Your task to perform on an android device: Is it going to rain today? Image 0: 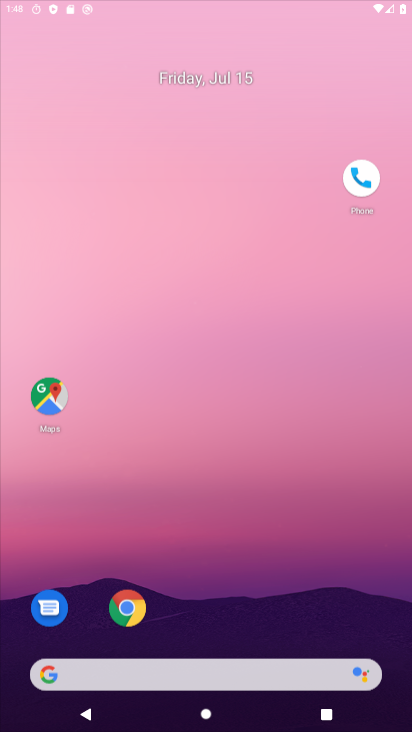
Step 0: click (368, 41)
Your task to perform on an android device: Is it going to rain today? Image 1: 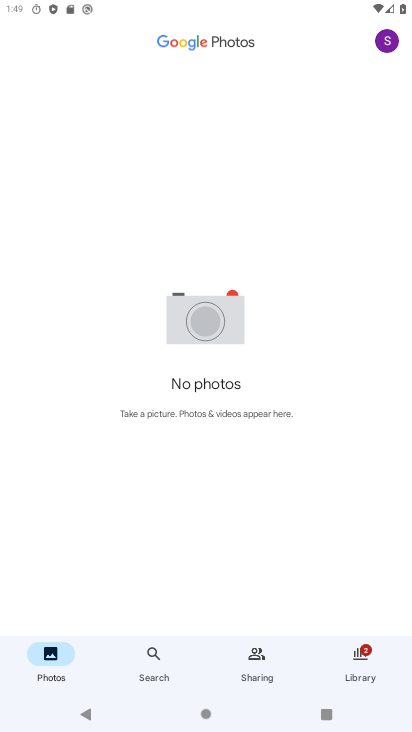
Step 1: drag from (205, 585) to (240, 268)
Your task to perform on an android device: Is it going to rain today? Image 2: 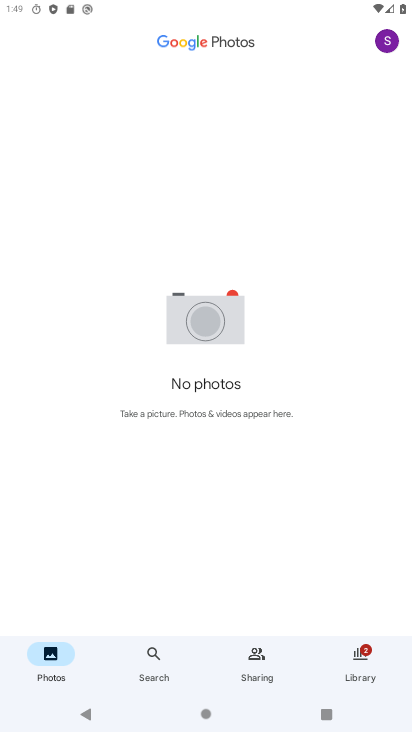
Step 2: press home button
Your task to perform on an android device: Is it going to rain today? Image 3: 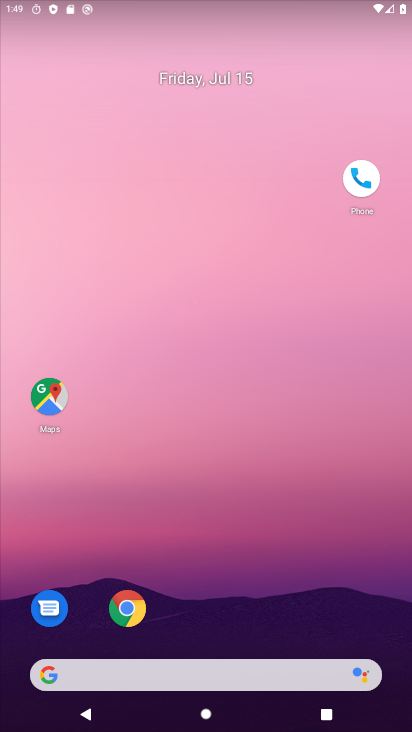
Step 3: drag from (192, 614) to (278, 76)
Your task to perform on an android device: Is it going to rain today? Image 4: 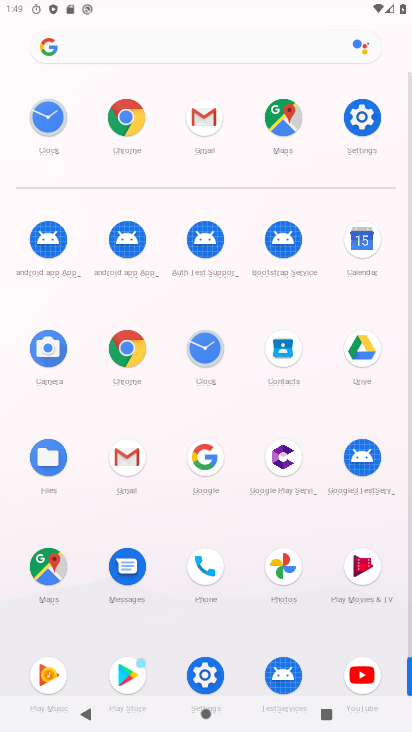
Step 4: click (202, 45)
Your task to perform on an android device: Is it going to rain today? Image 5: 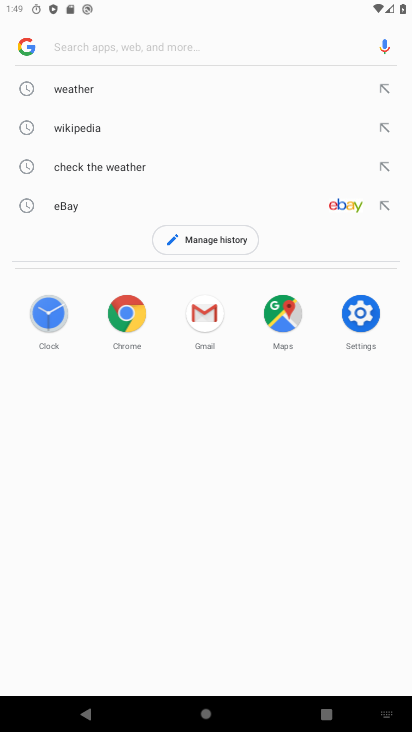
Step 5: type "Is it going to rain today?"
Your task to perform on an android device: Is it going to rain today? Image 6: 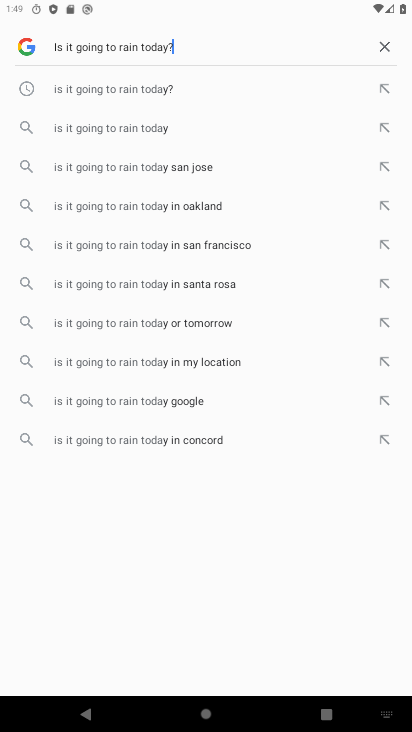
Step 6: type ""
Your task to perform on an android device: Is it going to rain today? Image 7: 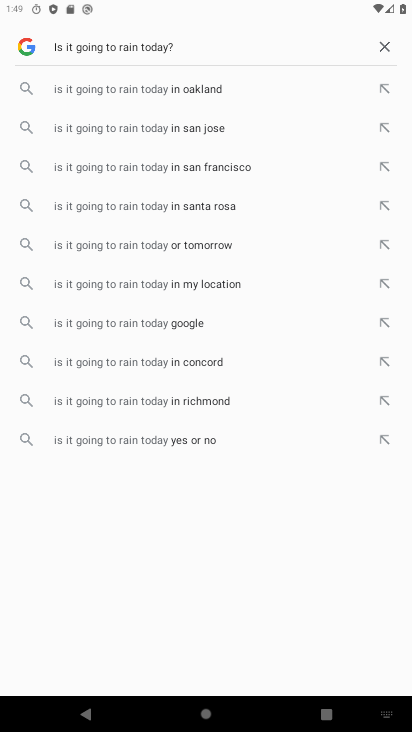
Step 7: click (63, 330)
Your task to perform on an android device: Is it going to rain today? Image 8: 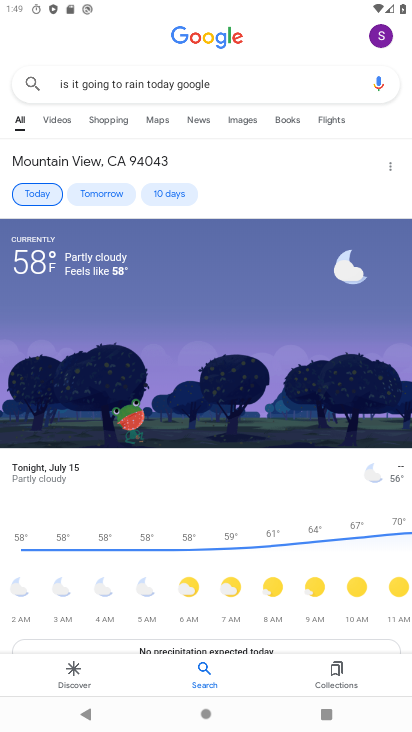
Step 8: task complete